Your task to perform on an android device: Go to eBay Image 0: 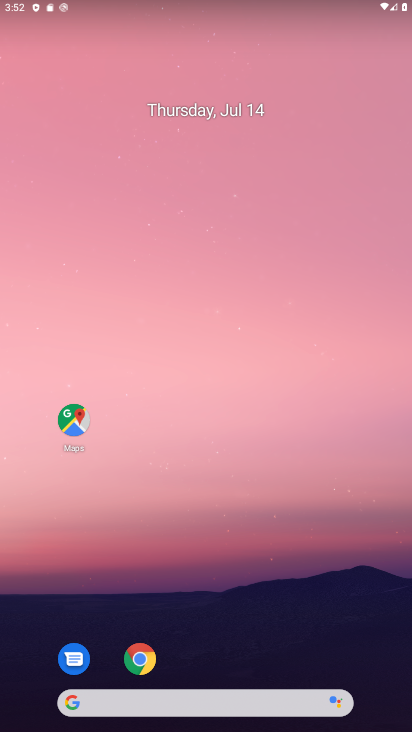
Step 0: drag from (219, 704) to (196, 96)
Your task to perform on an android device: Go to eBay Image 1: 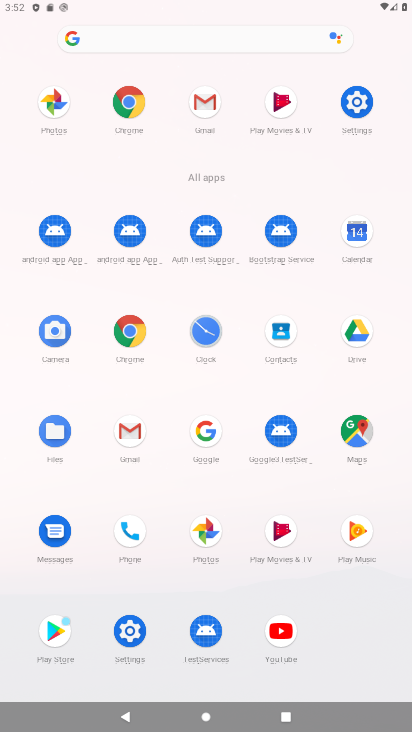
Step 1: click (136, 327)
Your task to perform on an android device: Go to eBay Image 2: 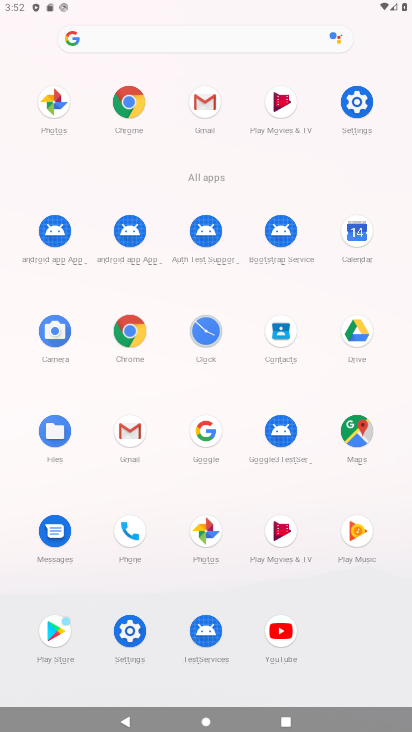
Step 2: click (136, 331)
Your task to perform on an android device: Go to eBay Image 3: 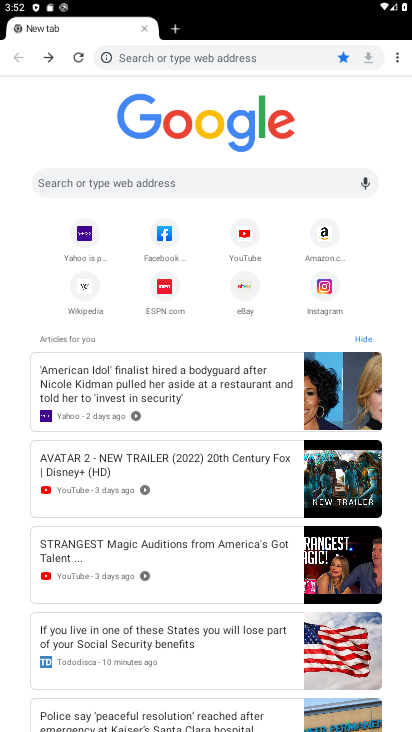
Step 3: click (248, 287)
Your task to perform on an android device: Go to eBay Image 4: 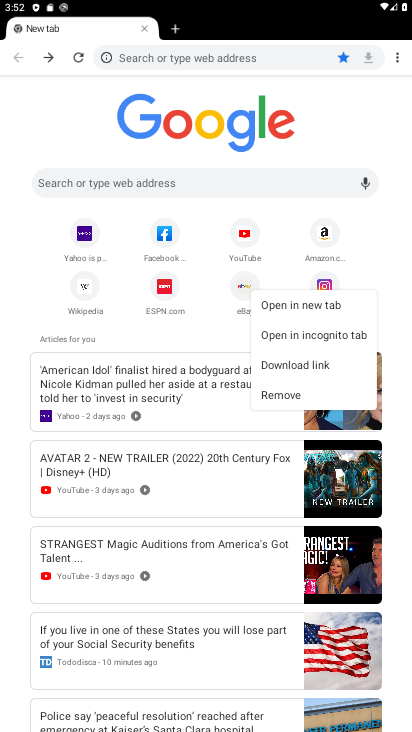
Step 4: click (250, 284)
Your task to perform on an android device: Go to eBay Image 5: 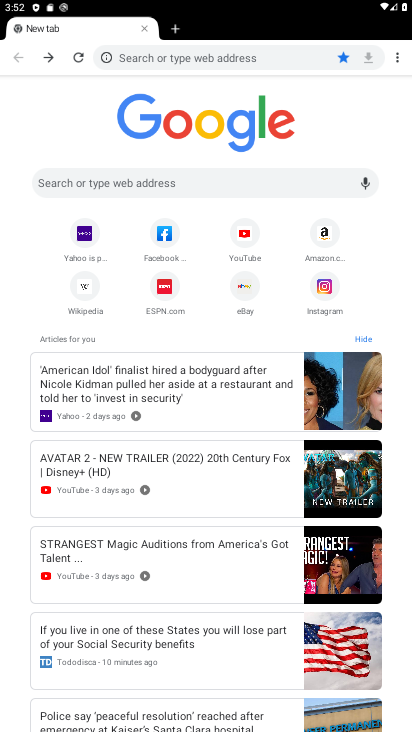
Step 5: click (261, 277)
Your task to perform on an android device: Go to eBay Image 6: 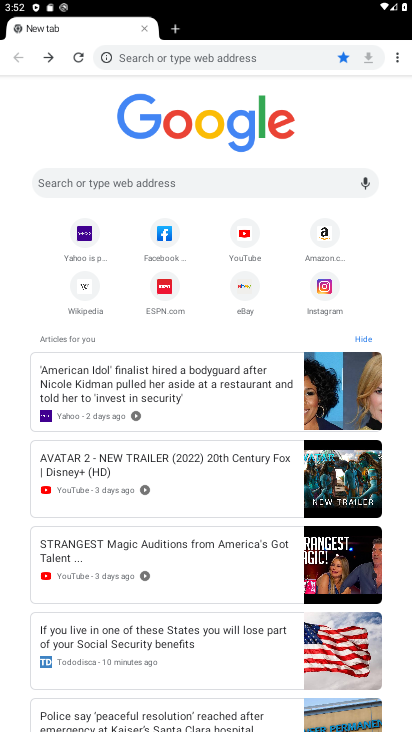
Step 6: click (253, 277)
Your task to perform on an android device: Go to eBay Image 7: 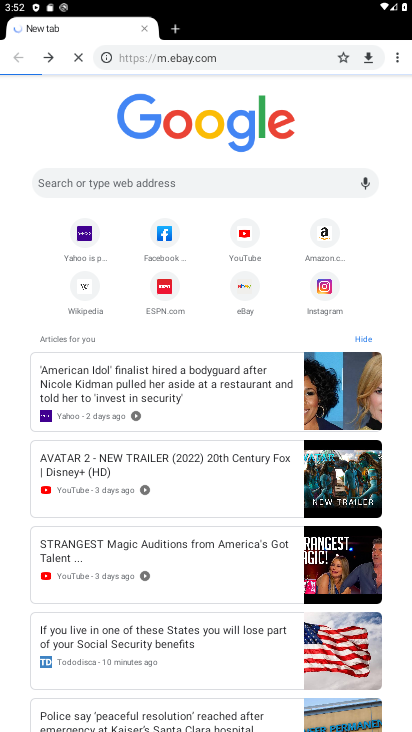
Step 7: click (253, 278)
Your task to perform on an android device: Go to eBay Image 8: 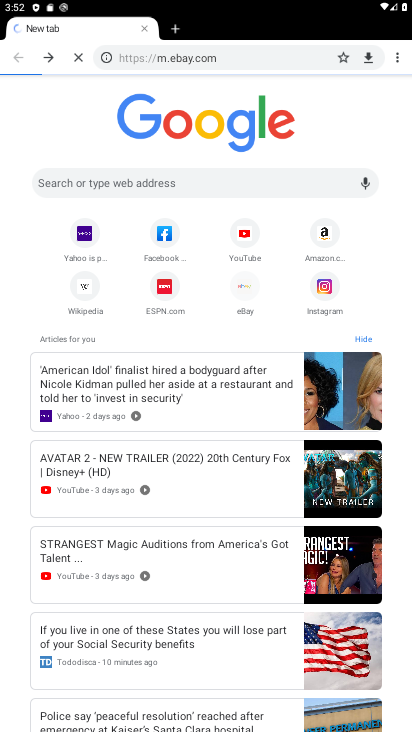
Step 8: click (255, 282)
Your task to perform on an android device: Go to eBay Image 9: 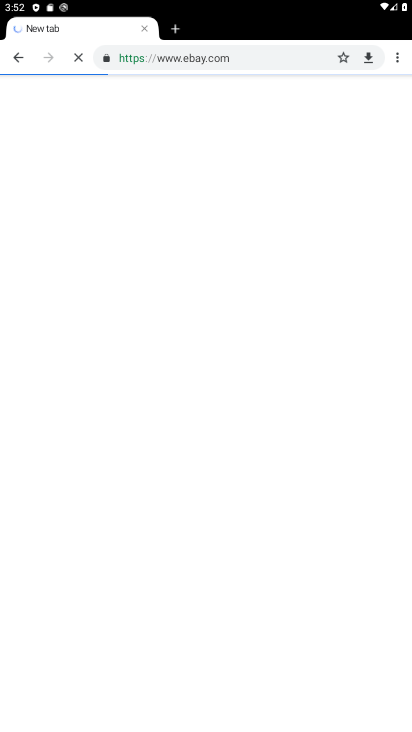
Step 9: task complete